Your task to perform on an android device: delete a single message in the gmail app Image 0: 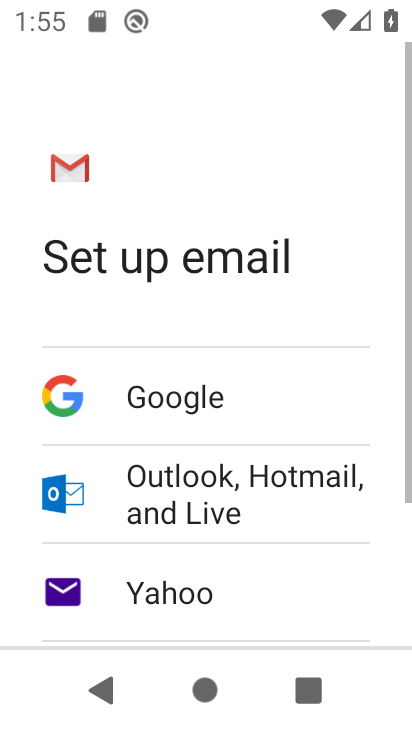
Step 0: press home button
Your task to perform on an android device: delete a single message in the gmail app Image 1: 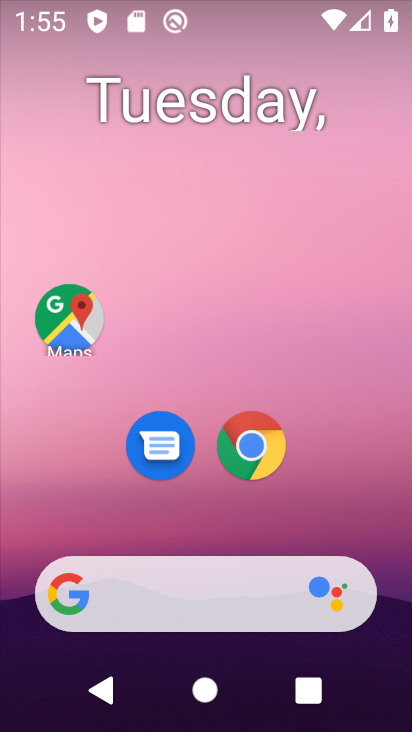
Step 1: drag from (104, 545) to (186, 36)
Your task to perform on an android device: delete a single message in the gmail app Image 2: 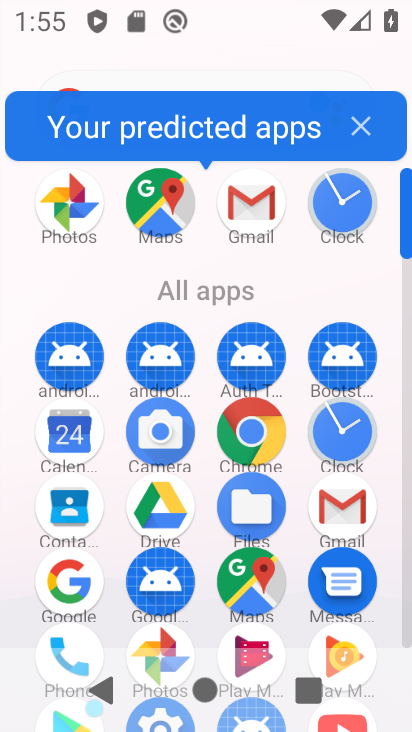
Step 2: click (335, 520)
Your task to perform on an android device: delete a single message in the gmail app Image 3: 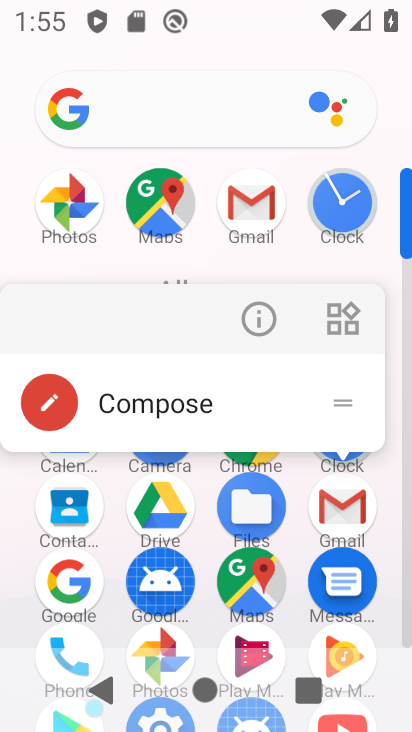
Step 3: click (348, 504)
Your task to perform on an android device: delete a single message in the gmail app Image 4: 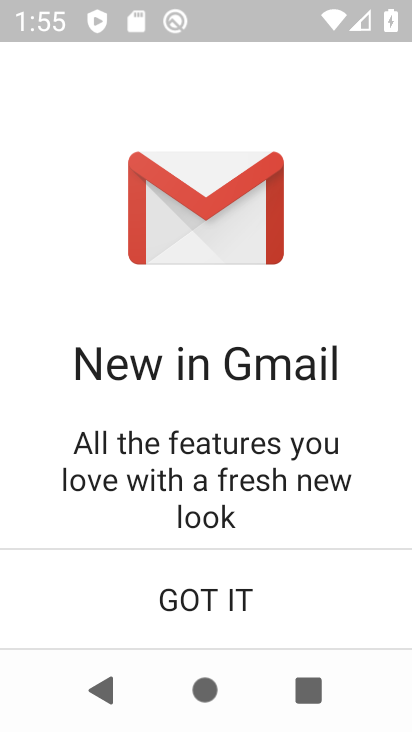
Step 4: click (174, 606)
Your task to perform on an android device: delete a single message in the gmail app Image 5: 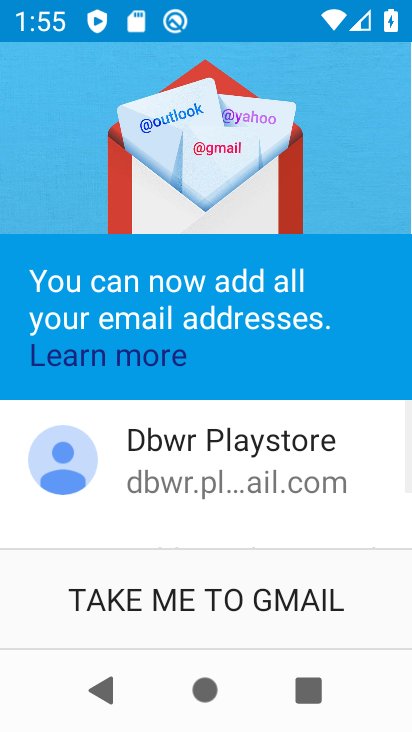
Step 5: click (260, 637)
Your task to perform on an android device: delete a single message in the gmail app Image 6: 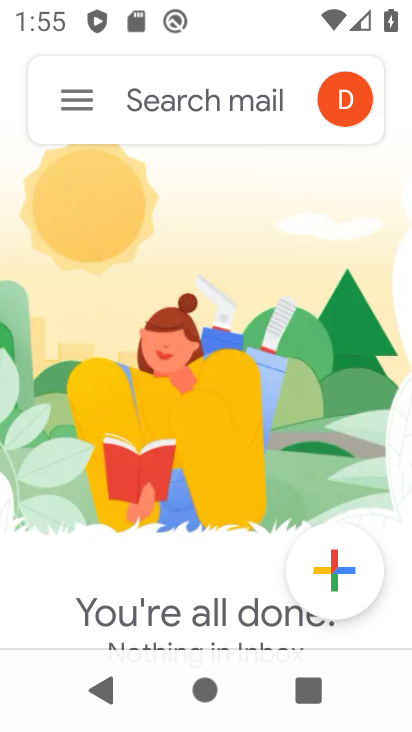
Step 6: click (80, 106)
Your task to perform on an android device: delete a single message in the gmail app Image 7: 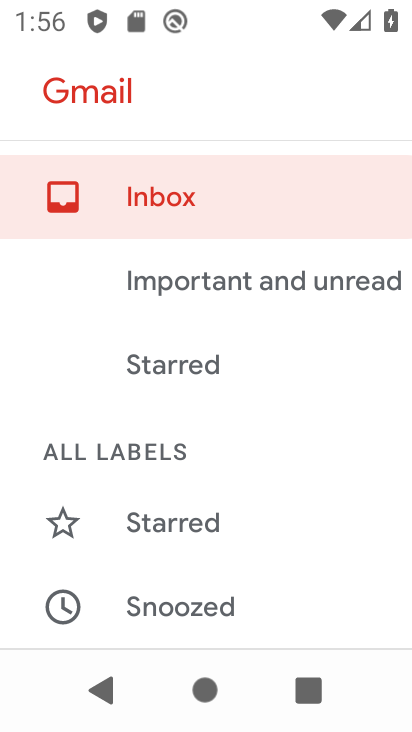
Step 7: drag from (175, 584) to (286, 156)
Your task to perform on an android device: delete a single message in the gmail app Image 8: 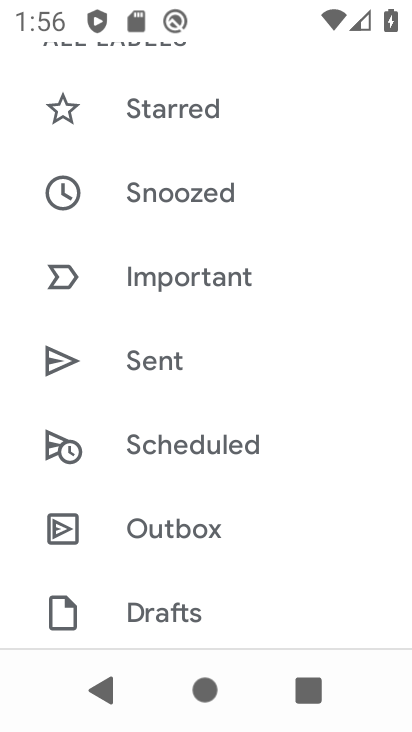
Step 8: drag from (181, 582) to (242, 331)
Your task to perform on an android device: delete a single message in the gmail app Image 9: 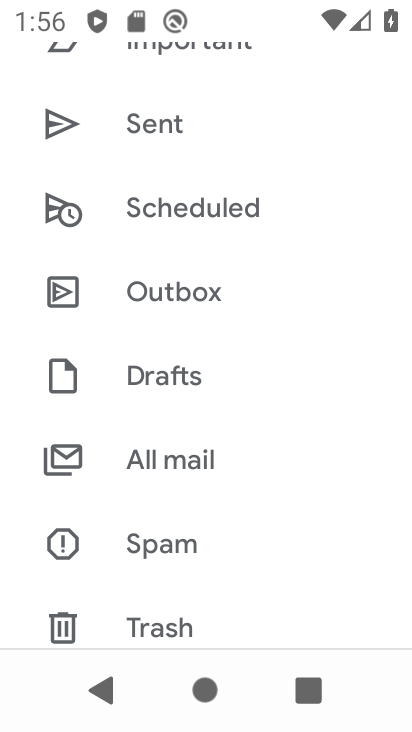
Step 9: click (229, 462)
Your task to perform on an android device: delete a single message in the gmail app Image 10: 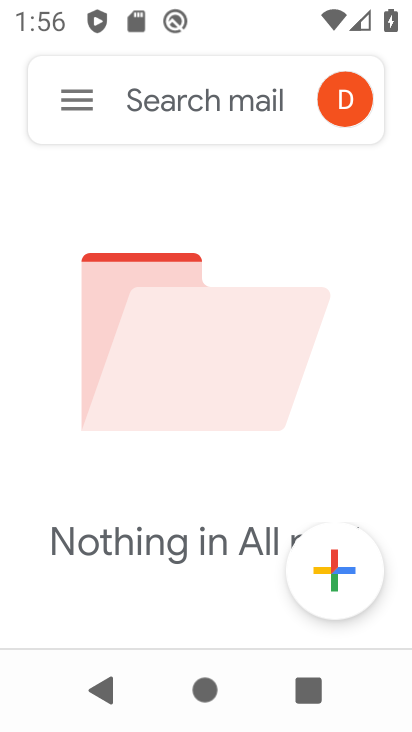
Step 10: task complete